Your task to perform on an android device: turn pop-ups on in chrome Image 0: 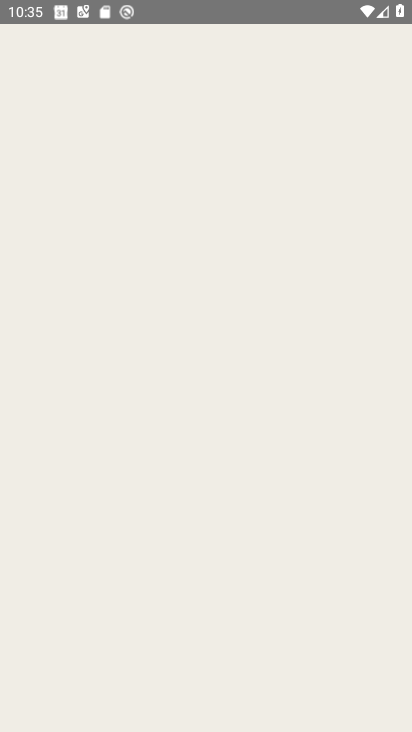
Step 0: press home button
Your task to perform on an android device: turn pop-ups on in chrome Image 1: 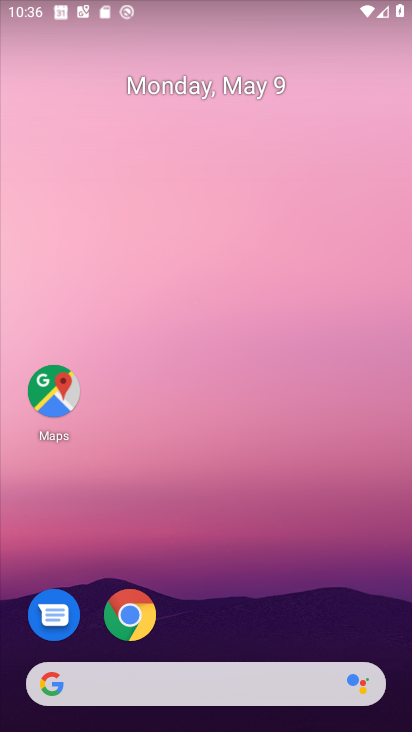
Step 1: drag from (235, 722) to (364, 154)
Your task to perform on an android device: turn pop-ups on in chrome Image 2: 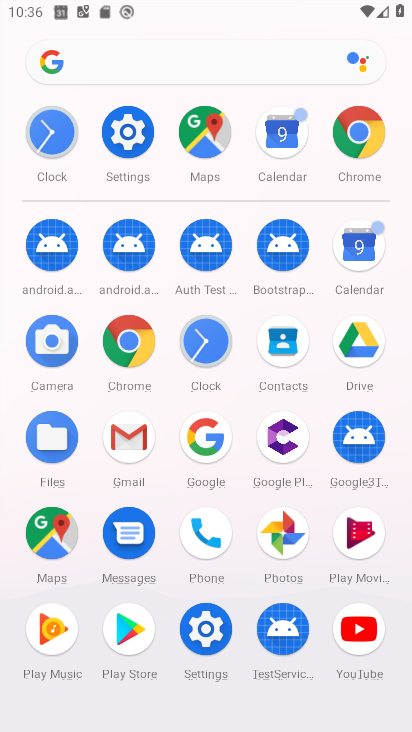
Step 2: click (364, 154)
Your task to perform on an android device: turn pop-ups on in chrome Image 3: 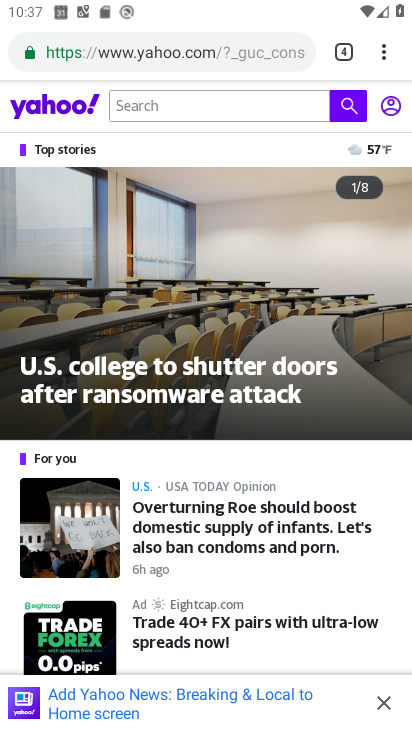
Step 3: click (375, 60)
Your task to perform on an android device: turn pop-ups on in chrome Image 4: 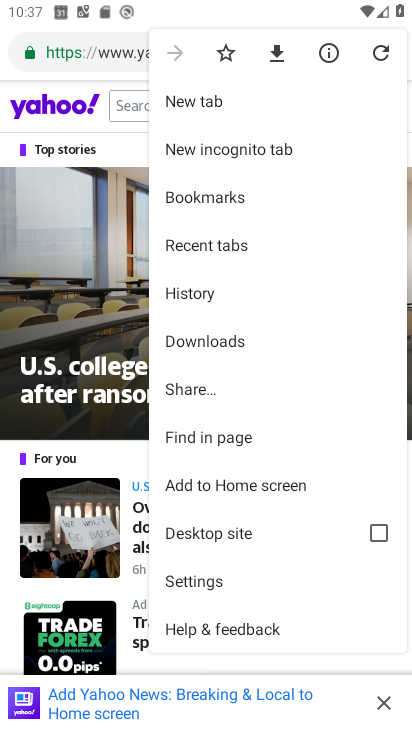
Step 4: click (187, 582)
Your task to perform on an android device: turn pop-ups on in chrome Image 5: 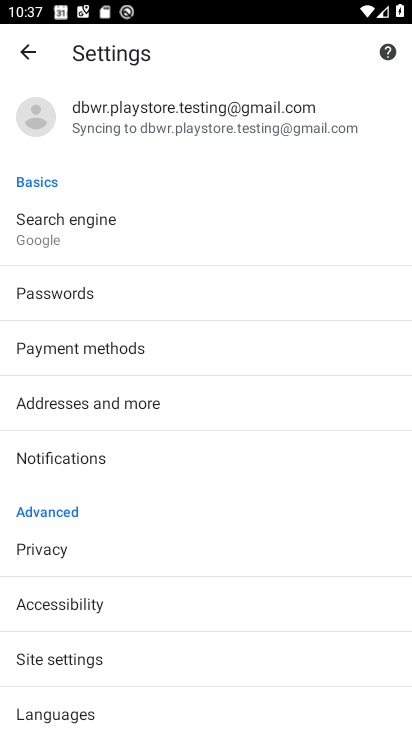
Step 5: click (100, 668)
Your task to perform on an android device: turn pop-ups on in chrome Image 6: 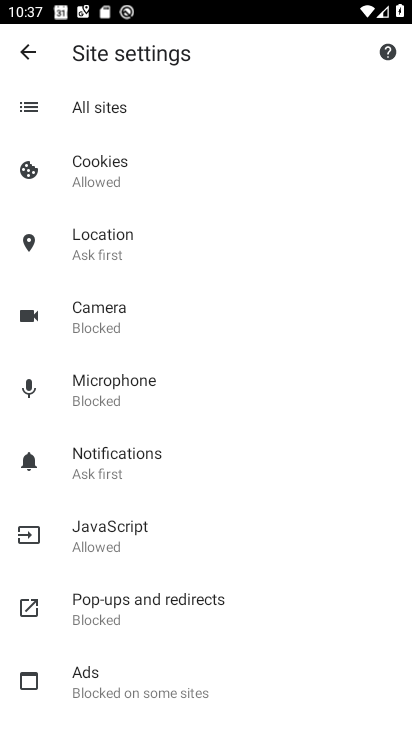
Step 6: click (149, 599)
Your task to perform on an android device: turn pop-ups on in chrome Image 7: 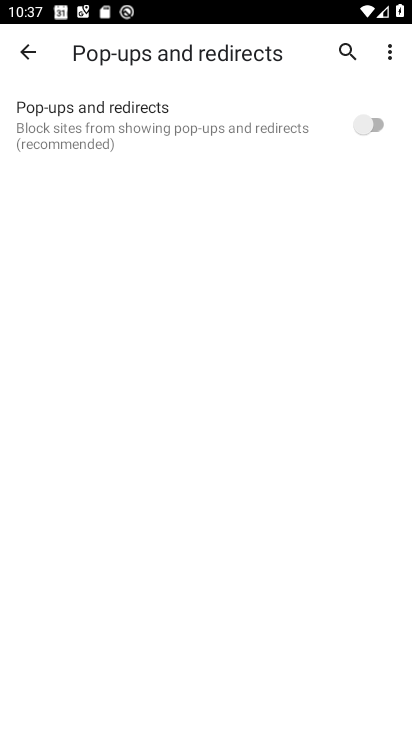
Step 7: click (305, 139)
Your task to perform on an android device: turn pop-ups on in chrome Image 8: 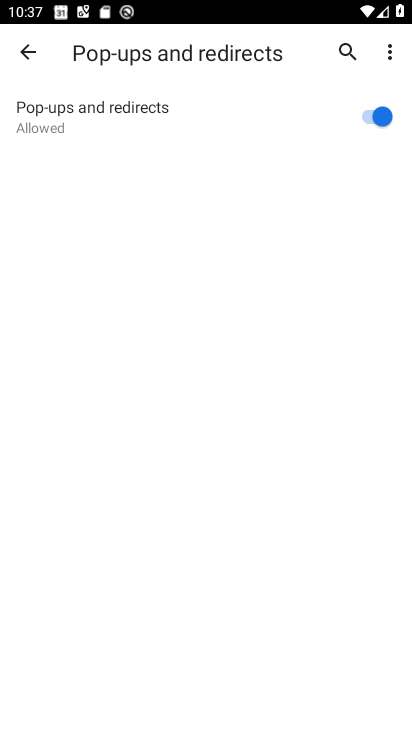
Step 8: task complete